Your task to perform on an android device: Open Youtube and go to "Your channel" Image 0: 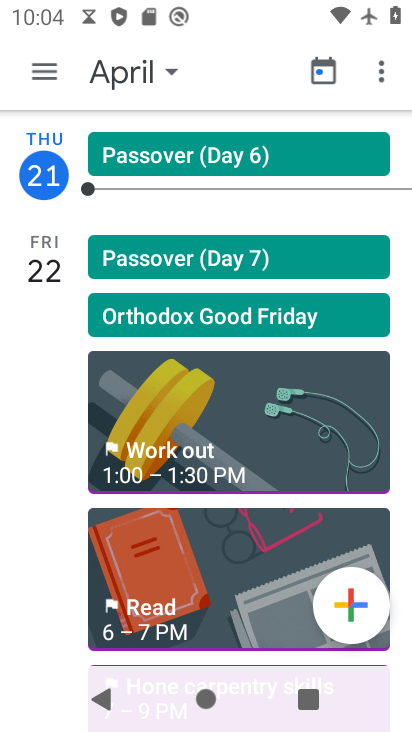
Step 0: press home button
Your task to perform on an android device: Open Youtube and go to "Your channel" Image 1: 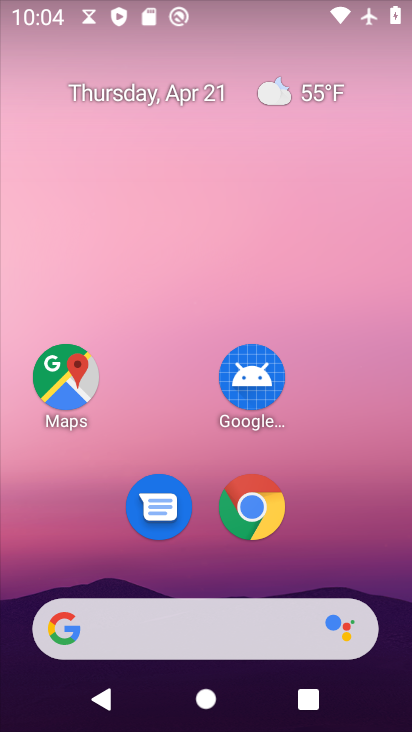
Step 1: drag from (290, 484) to (311, 44)
Your task to perform on an android device: Open Youtube and go to "Your channel" Image 2: 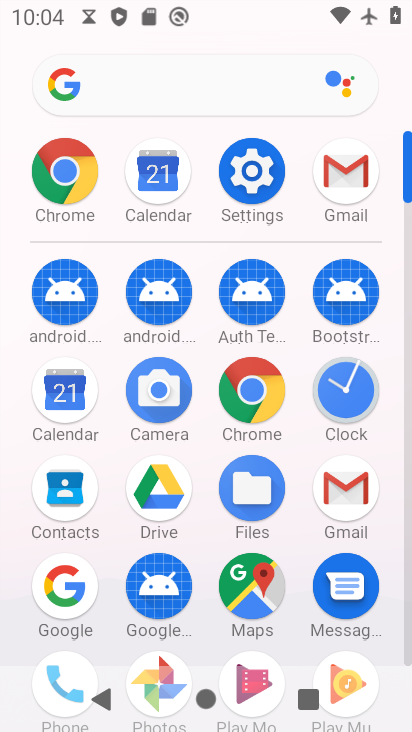
Step 2: drag from (302, 584) to (341, 117)
Your task to perform on an android device: Open Youtube and go to "Your channel" Image 3: 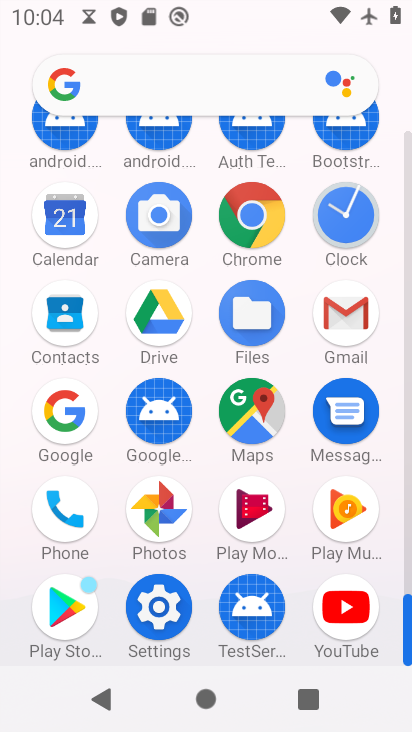
Step 3: click (354, 600)
Your task to perform on an android device: Open Youtube and go to "Your channel" Image 4: 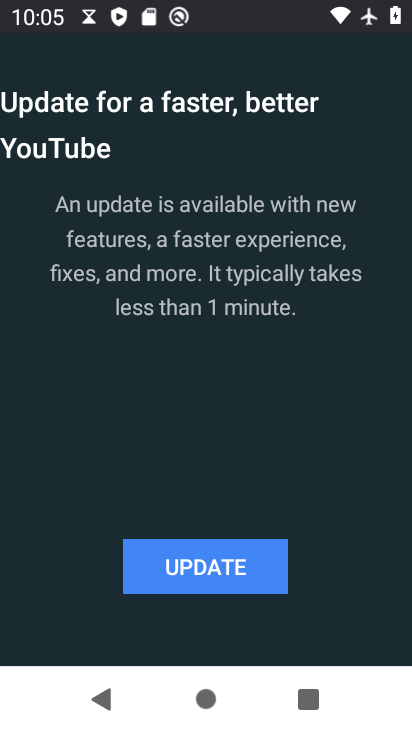
Step 4: task complete